Your task to perform on an android device: see tabs open on other devices in the chrome app Image 0: 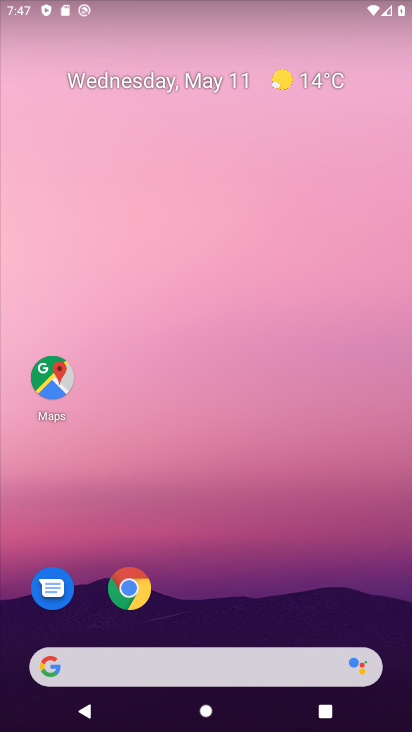
Step 0: click (134, 590)
Your task to perform on an android device: see tabs open on other devices in the chrome app Image 1: 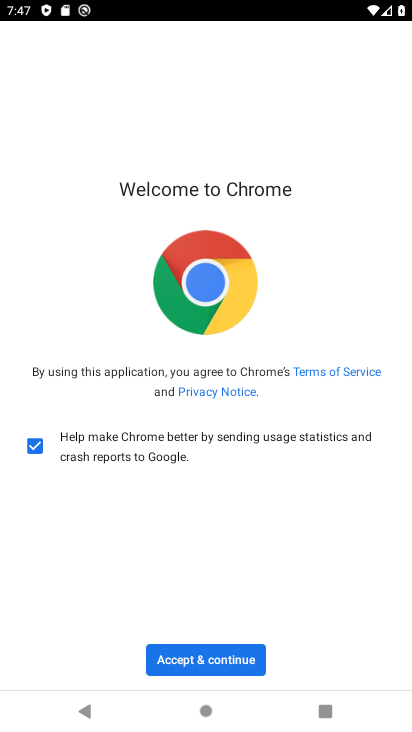
Step 1: click (245, 661)
Your task to perform on an android device: see tabs open on other devices in the chrome app Image 2: 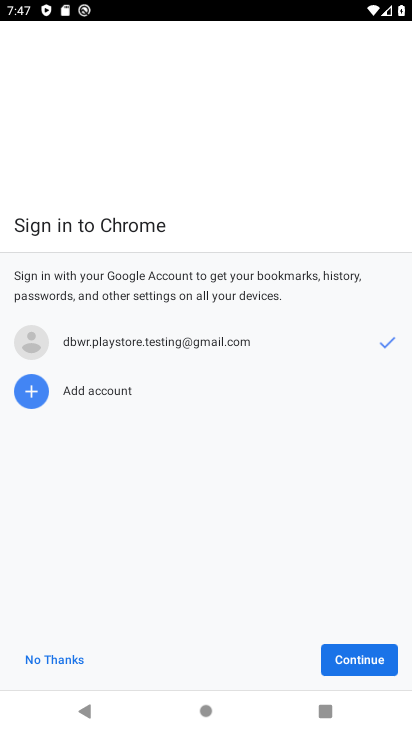
Step 2: click (363, 663)
Your task to perform on an android device: see tabs open on other devices in the chrome app Image 3: 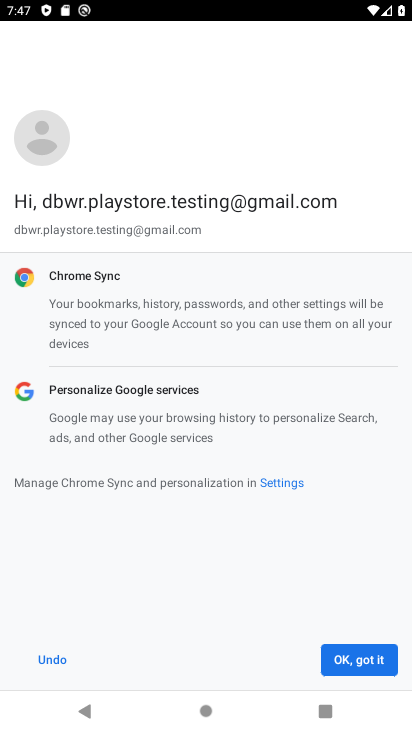
Step 3: click (364, 663)
Your task to perform on an android device: see tabs open on other devices in the chrome app Image 4: 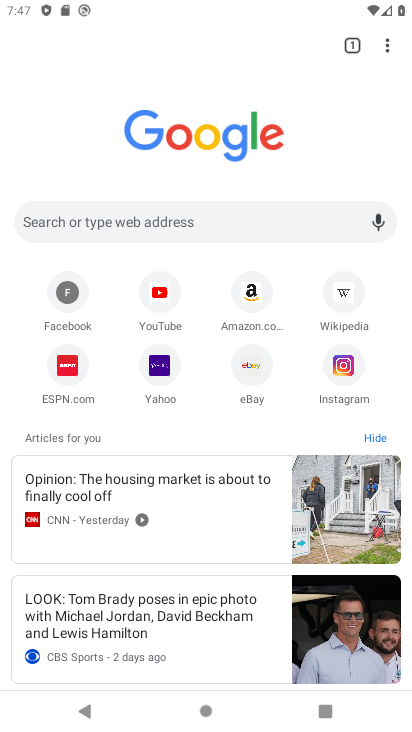
Step 4: click (391, 48)
Your task to perform on an android device: see tabs open on other devices in the chrome app Image 5: 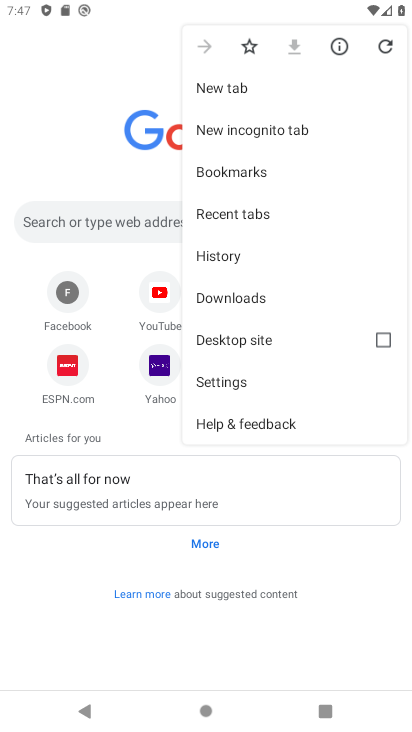
Step 5: click (239, 216)
Your task to perform on an android device: see tabs open on other devices in the chrome app Image 6: 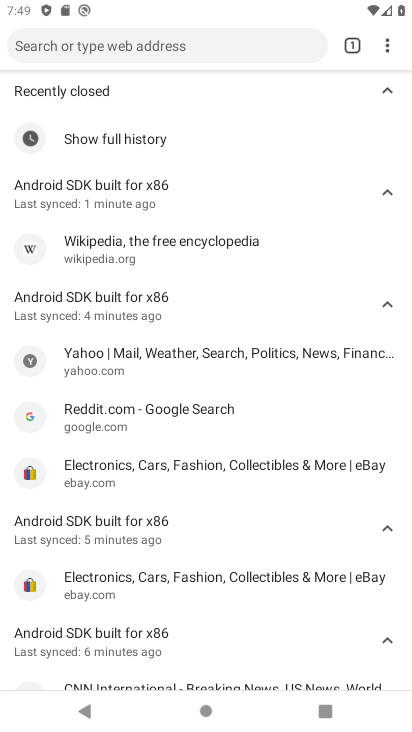
Step 6: task complete